Your task to perform on an android device: change the clock style Image 0: 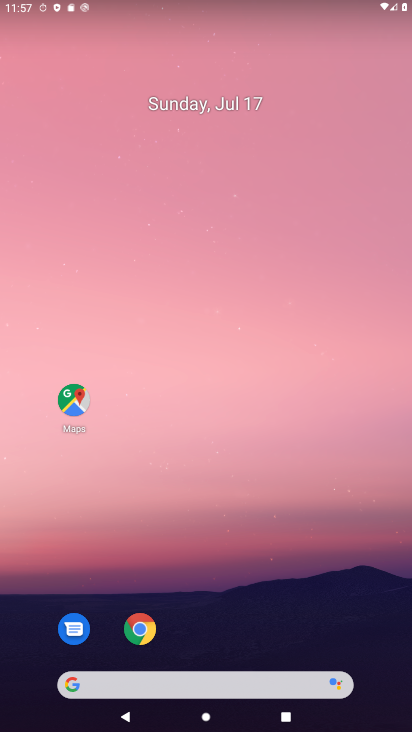
Step 0: press home button
Your task to perform on an android device: change the clock style Image 1: 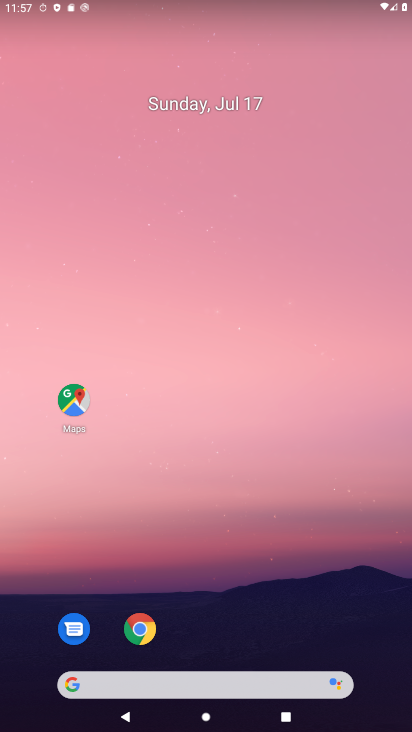
Step 1: drag from (221, 650) to (219, 74)
Your task to perform on an android device: change the clock style Image 2: 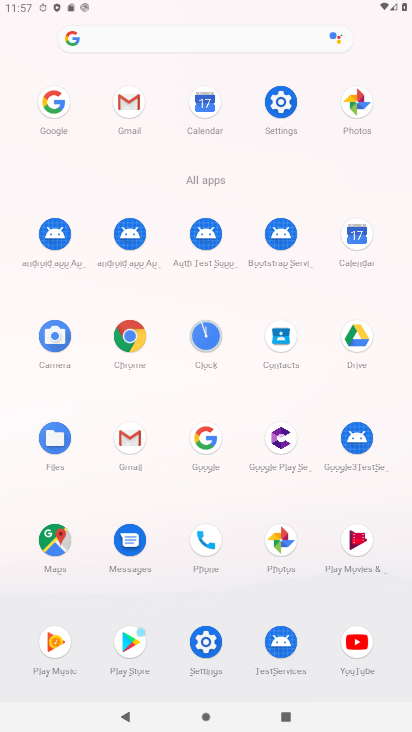
Step 2: click (203, 331)
Your task to perform on an android device: change the clock style Image 3: 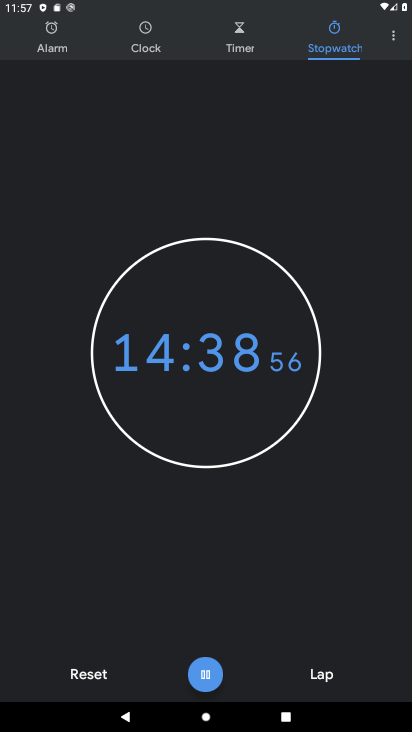
Step 3: click (78, 666)
Your task to perform on an android device: change the clock style Image 4: 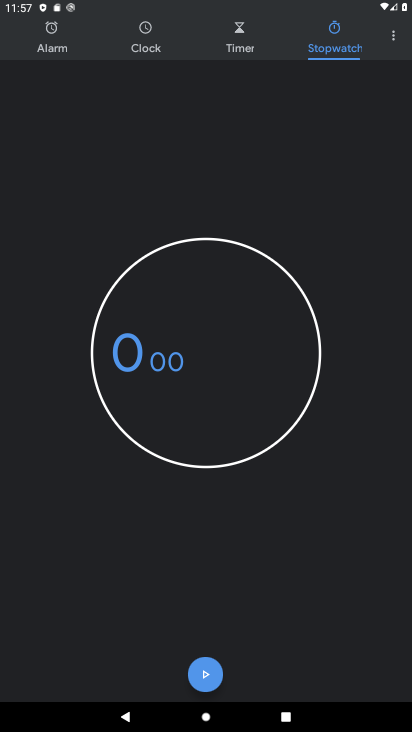
Step 4: click (398, 35)
Your task to perform on an android device: change the clock style Image 5: 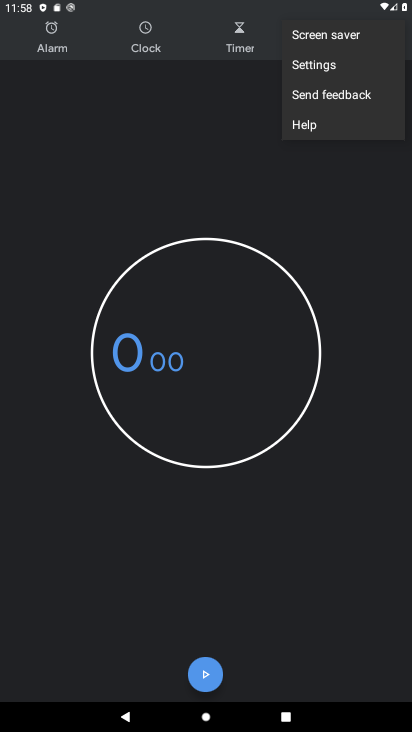
Step 5: click (345, 63)
Your task to perform on an android device: change the clock style Image 6: 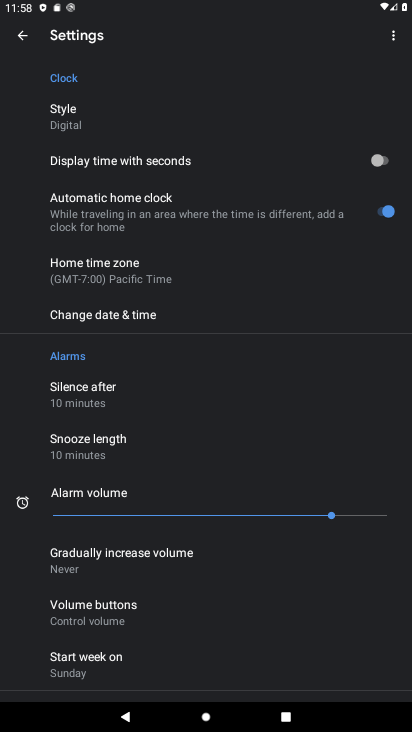
Step 6: click (90, 117)
Your task to perform on an android device: change the clock style Image 7: 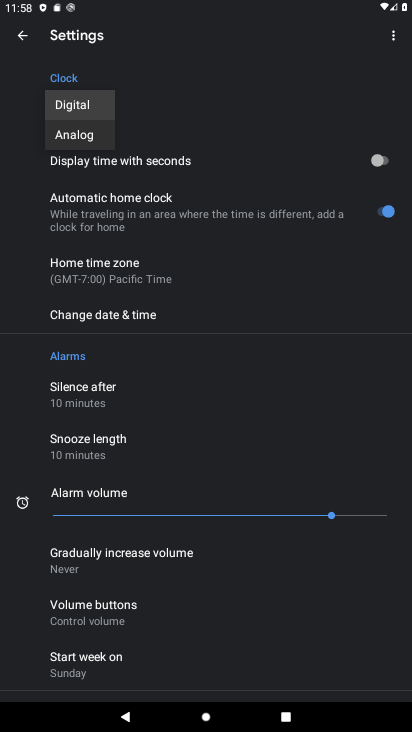
Step 7: click (102, 143)
Your task to perform on an android device: change the clock style Image 8: 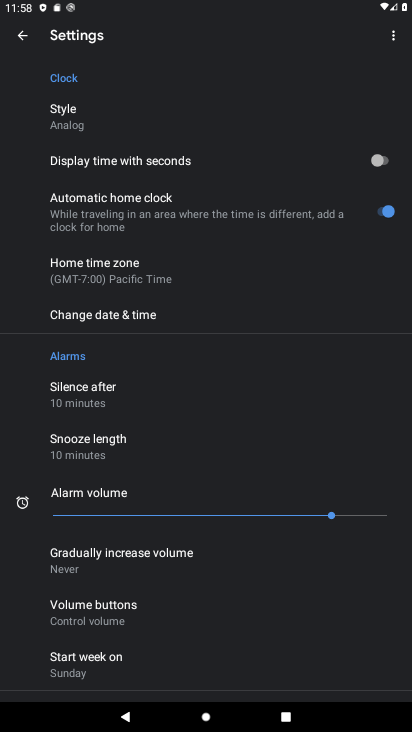
Step 8: task complete